Your task to perform on an android device: remove spam from my inbox in the gmail app Image 0: 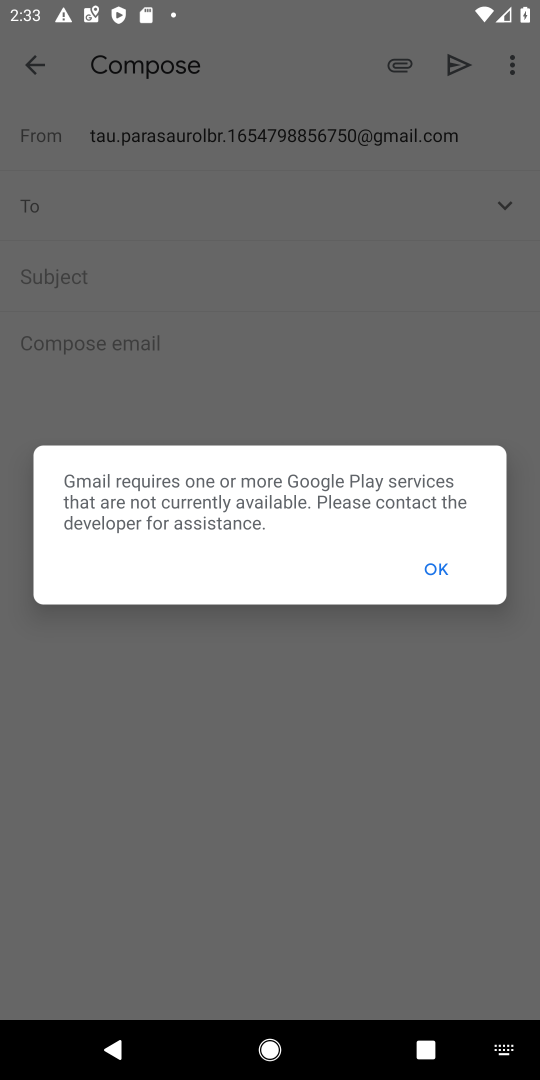
Step 0: press back button
Your task to perform on an android device: remove spam from my inbox in the gmail app Image 1: 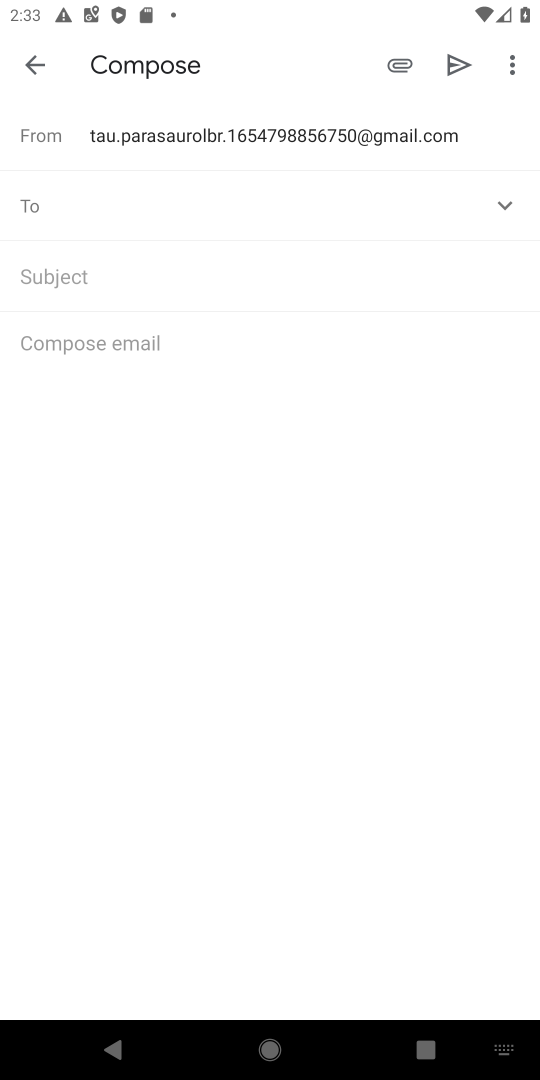
Step 1: press home button
Your task to perform on an android device: remove spam from my inbox in the gmail app Image 2: 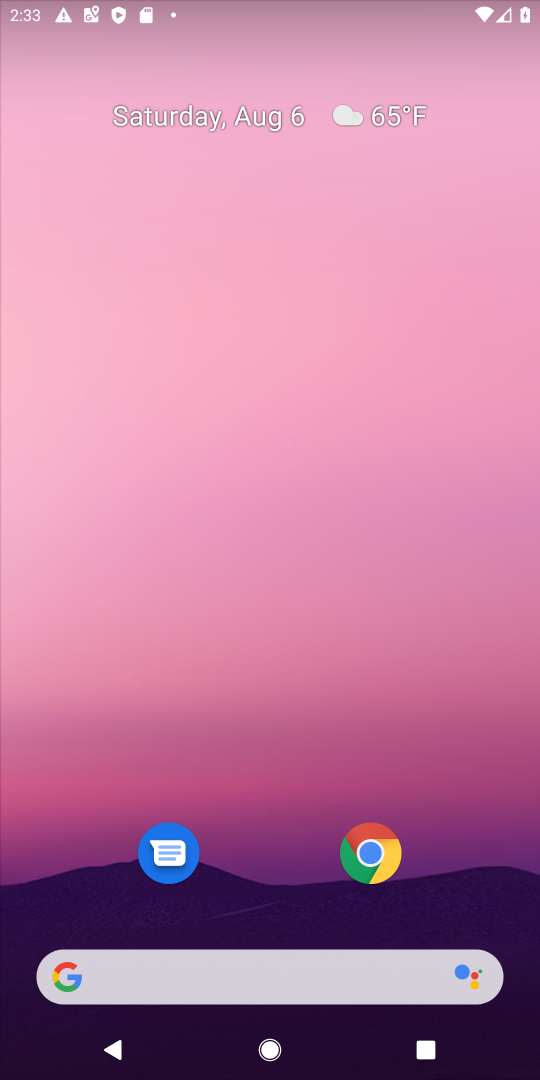
Step 2: drag from (292, 736) to (414, 15)
Your task to perform on an android device: remove spam from my inbox in the gmail app Image 3: 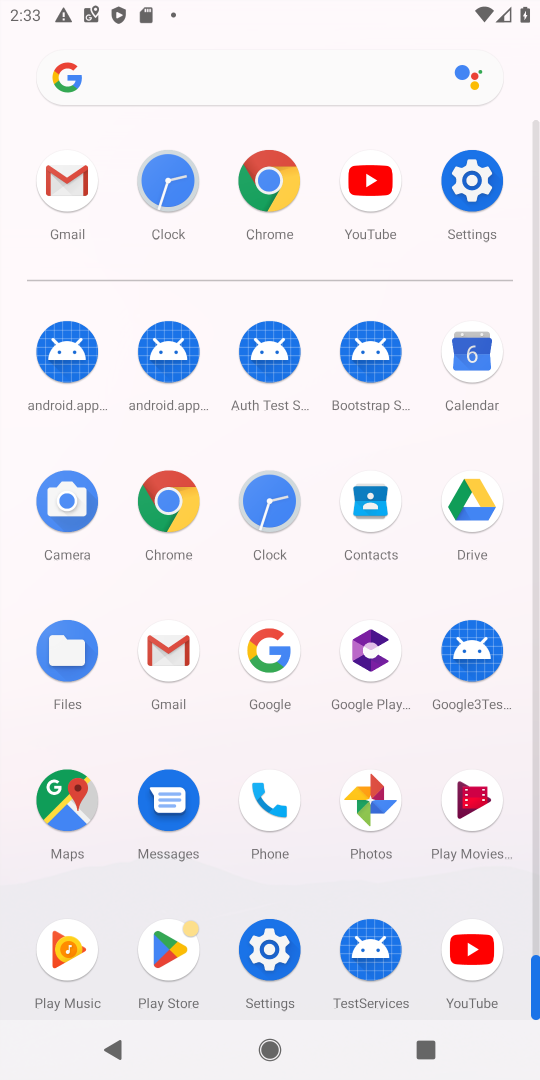
Step 3: click (61, 184)
Your task to perform on an android device: remove spam from my inbox in the gmail app Image 4: 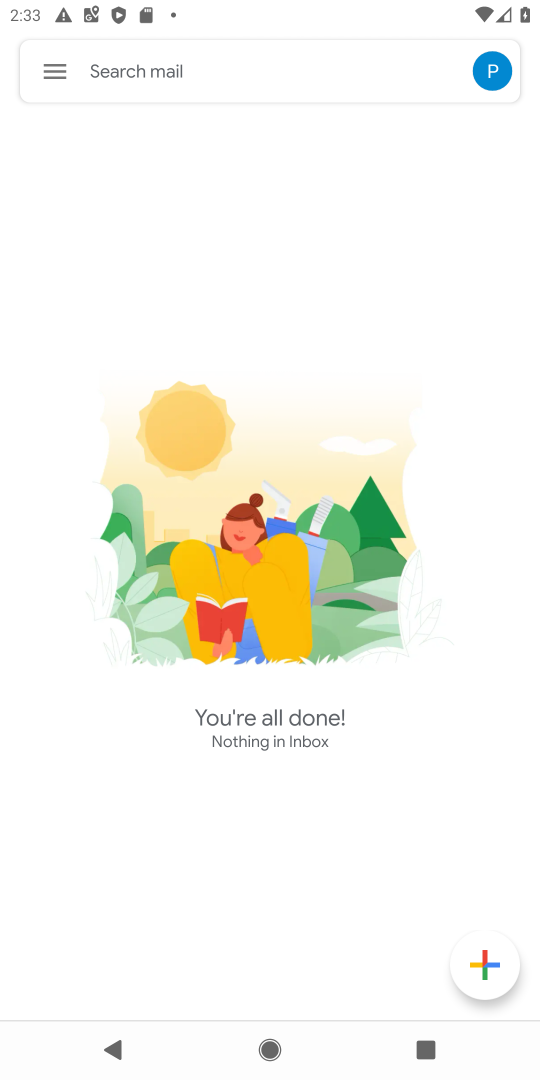
Step 4: click (58, 68)
Your task to perform on an android device: remove spam from my inbox in the gmail app Image 5: 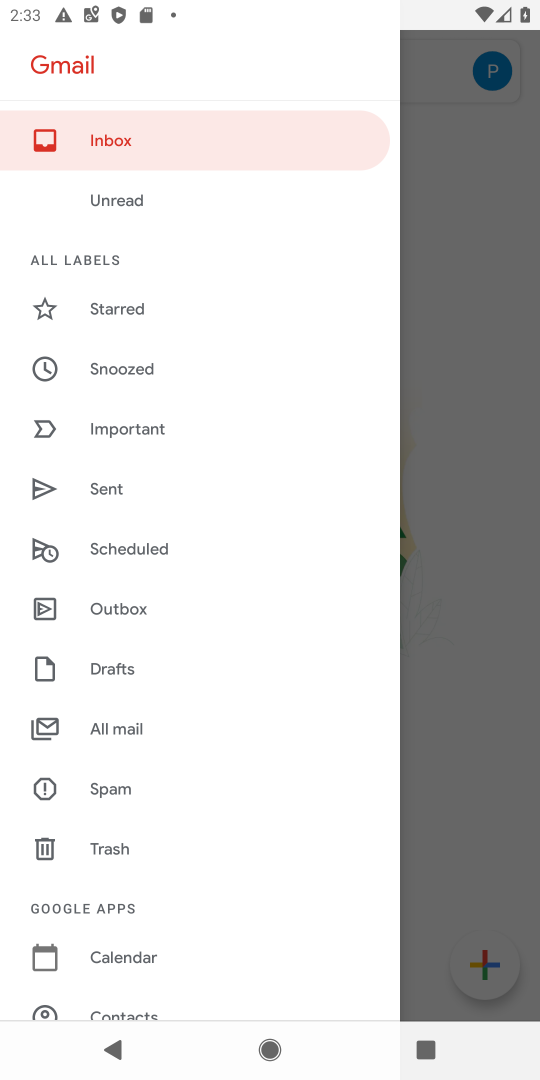
Step 5: click (113, 784)
Your task to perform on an android device: remove spam from my inbox in the gmail app Image 6: 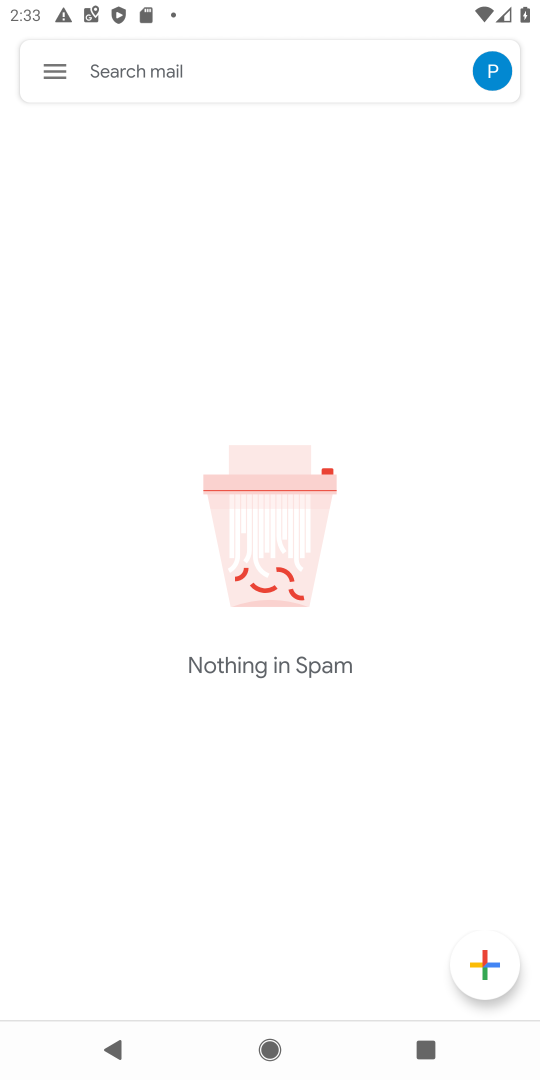
Step 6: task complete